Your task to perform on an android device: check storage Image 0: 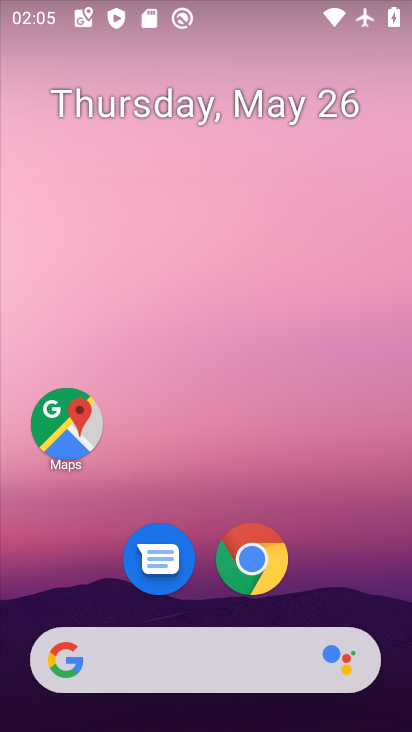
Step 0: press home button
Your task to perform on an android device: check storage Image 1: 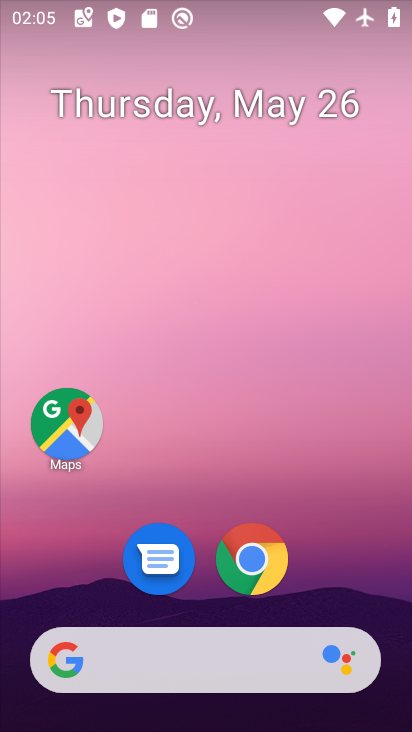
Step 1: drag from (184, 662) to (296, 98)
Your task to perform on an android device: check storage Image 2: 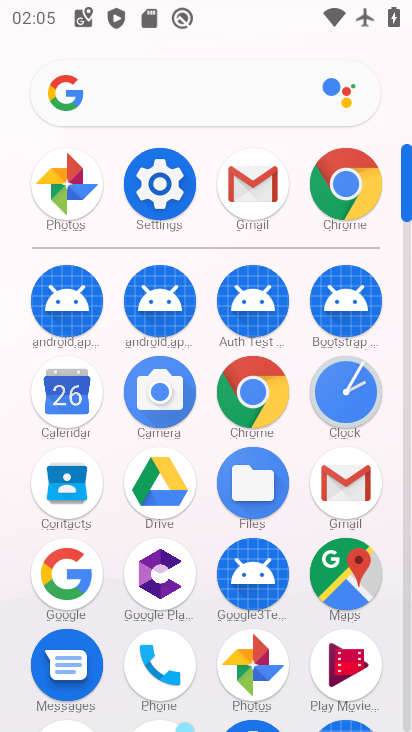
Step 2: click (154, 197)
Your task to perform on an android device: check storage Image 3: 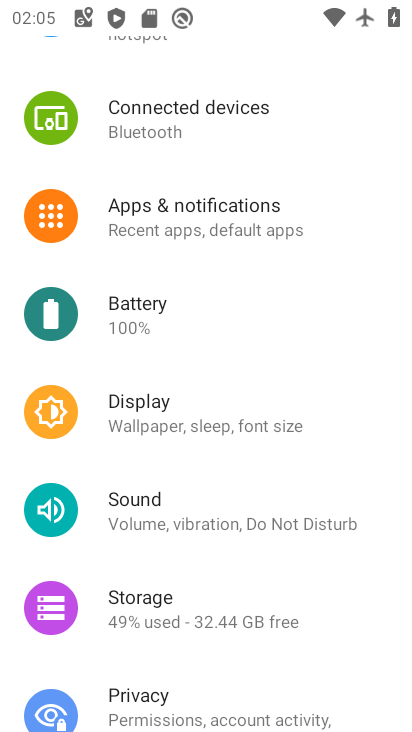
Step 3: click (171, 601)
Your task to perform on an android device: check storage Image 4: 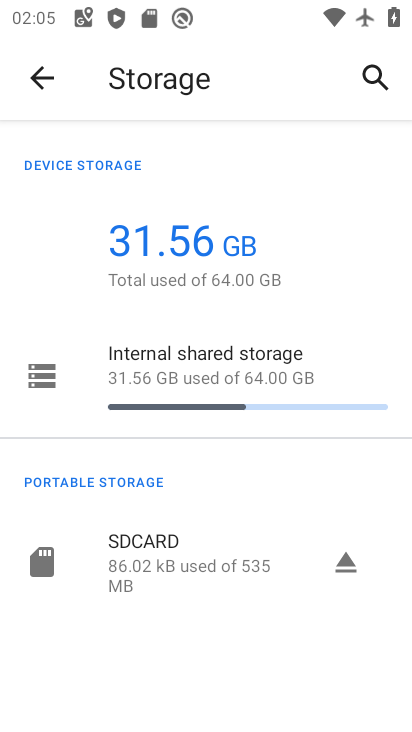
Step 4: task complete